Your task to perform on an android device: toggle sleep mode Image 0: 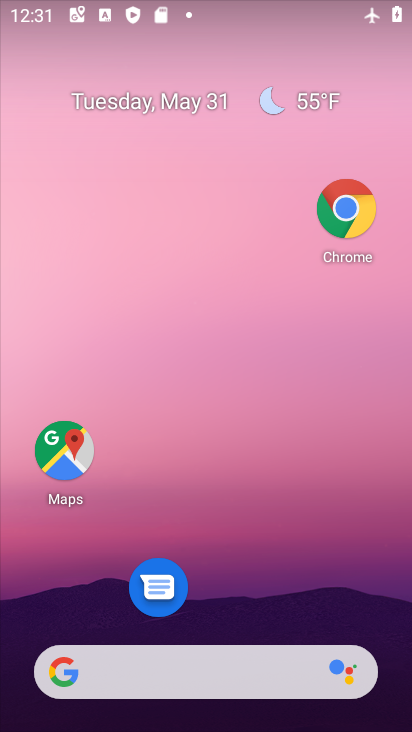
Step 0: click (252, 5)
Your task to perform on an android device: toggle sleep mode Image 1: 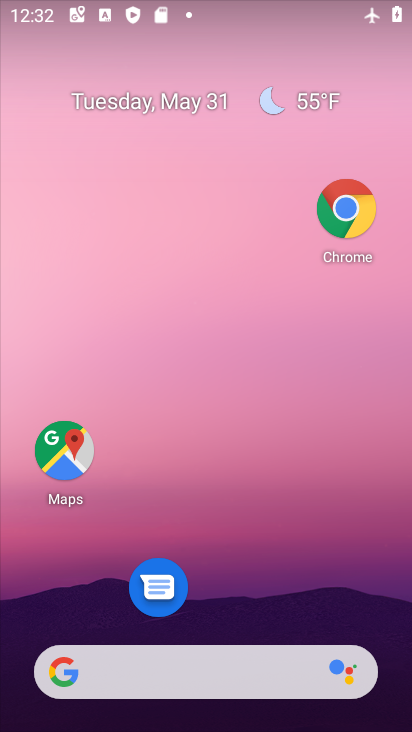
Step 1: drag from (218, 600) to (196, 158)
Your task to perform on an android device: toggle sleep mode Image 2: 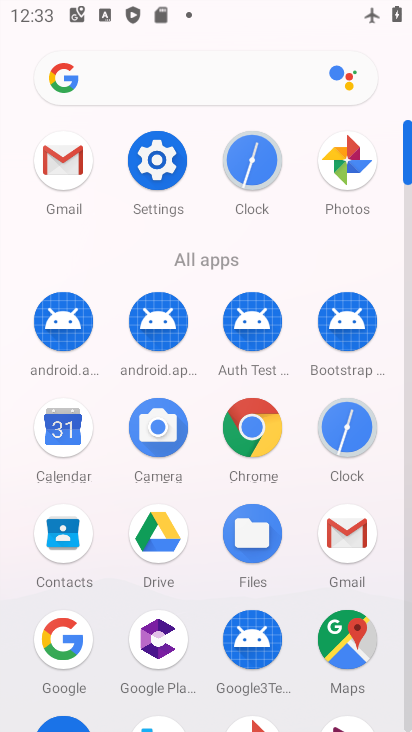
Step 2: click (157, 169)
Your task to perform on an android device: toggle sleep mode Image 3: 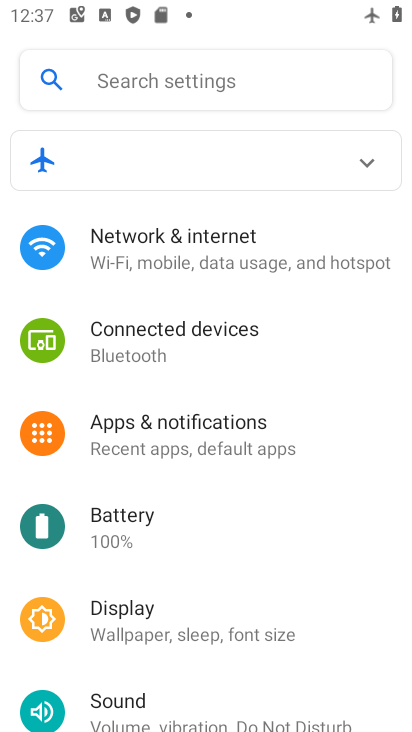
Step 3: task complete